Your task to perform on an android device: delete location history Image 0: 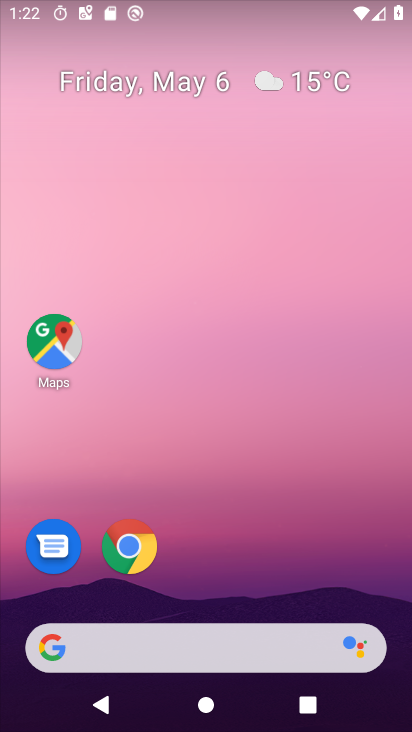
Step 0: click (61, 354)
Your task to perform on an android device: delete location history Image 1: 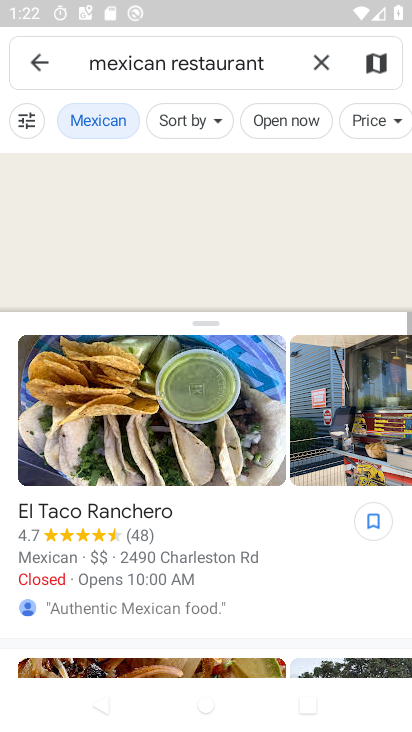
Step 1: click (41, 61)
Your task to perform on an android device: delete location history Image 2: 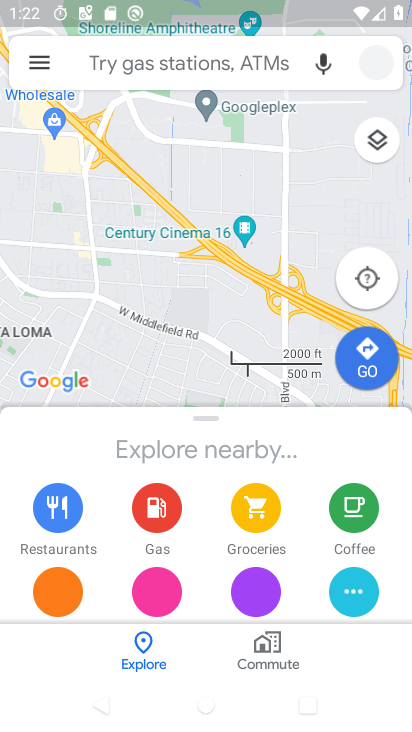
Step 2: click (41, 61)
Your task to perform on an android device: delete location history Image 3: 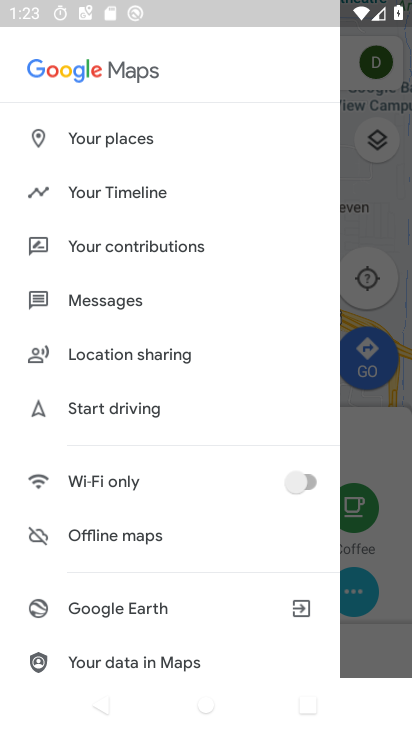
Step 3: click (156, 195)
Your task to perform on an android device: delete location history Image 4: 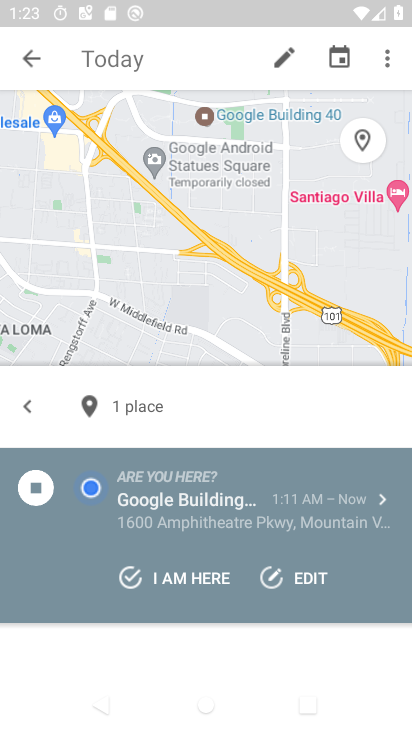
Step 4: click (386, 60)
Your task to perform on an android device: delete location history Image 5: 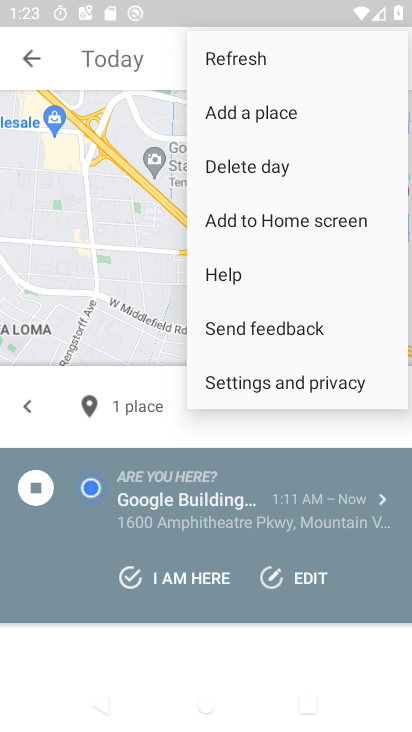
Step 5: click (349, 378)
Your task to perform on an android device: delete location history Image 6: 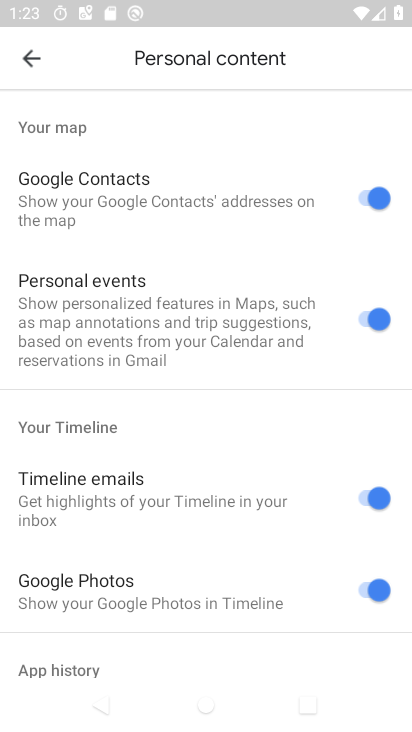
Step 6: drag from (258, 618) to (230, 240)
Your task to perform on an android device: delete location history Image 7: 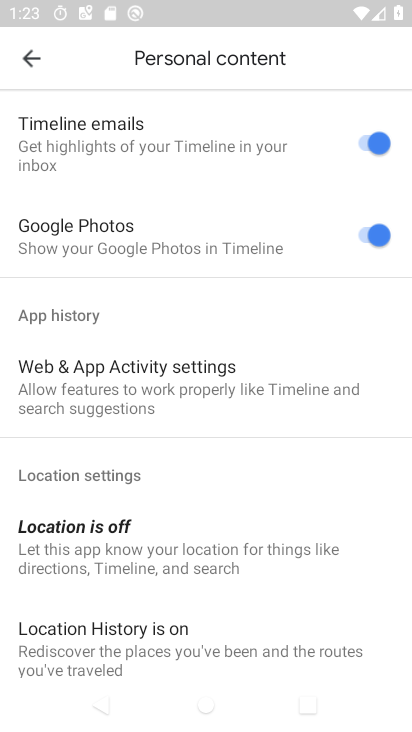
Step 7: drag from (212, 640) to (206, 337)
Your task to perform on an android device: delete location history Image 8: 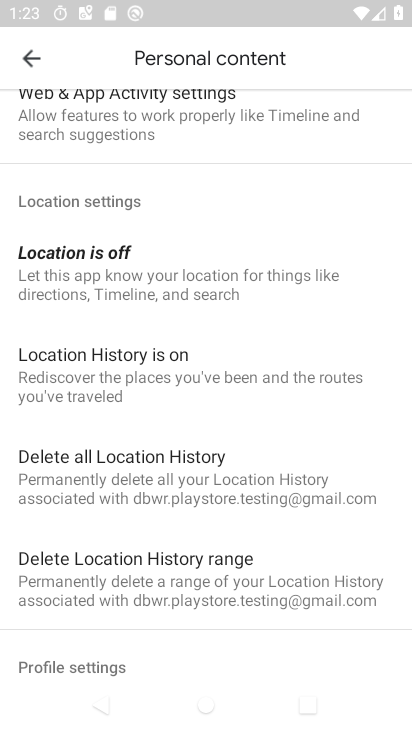
Step 8: click (228, 493)
Your task to perform on an android device: delete location history Image 9: 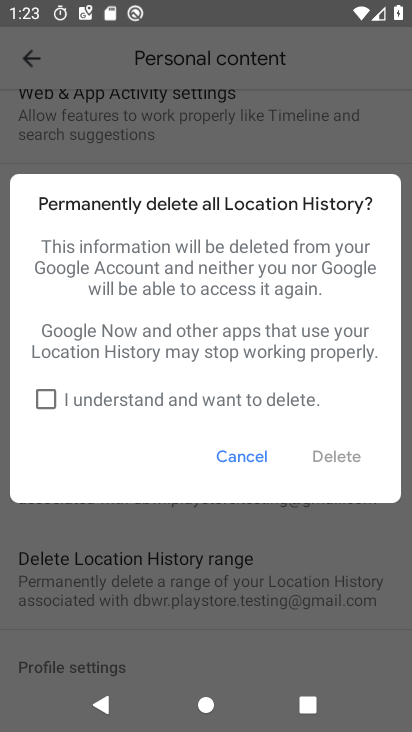
Step 9: click (46, 401)
Your task to perform on an android device: delete location history Image 10: 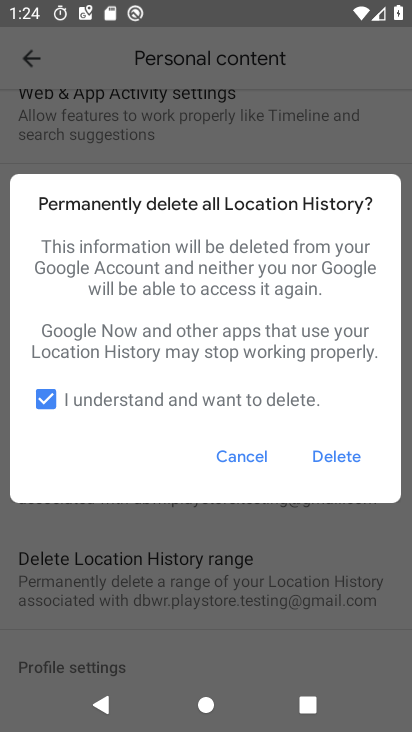
Step 10: click (335, 459)
Your task to perform on an android device: delete location history Image 11: 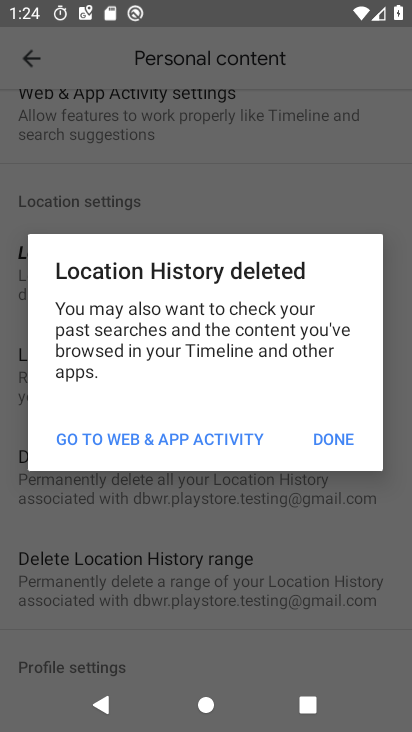
Step 11: click (335, 442)
Your task to perform on an android device: delete location history Image 12: 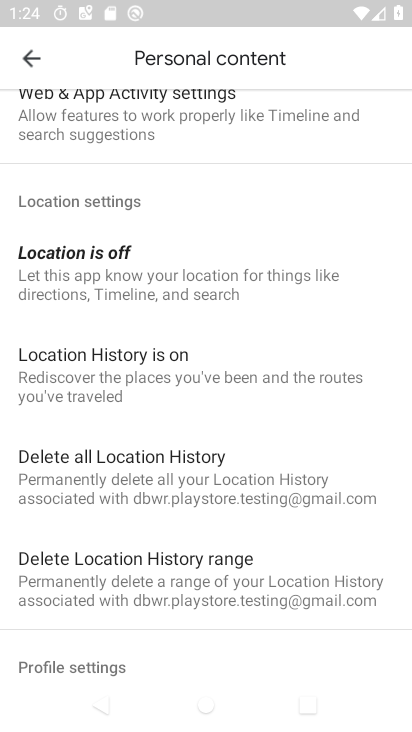
Step 12: task complete